Your task to perform on an android device: Turn off the flashlight Image 0: 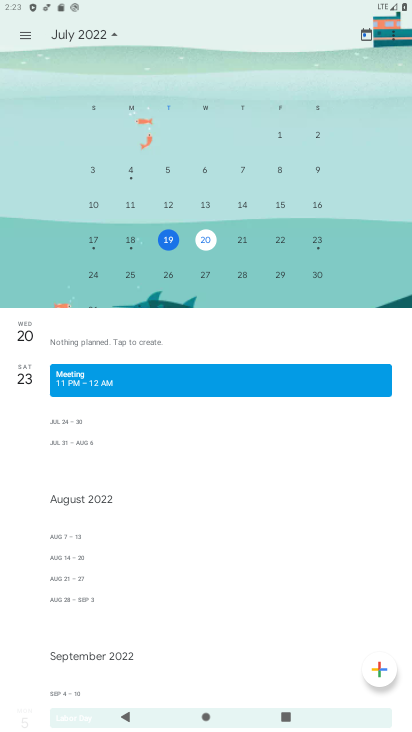
Step 0: press home button
Your task to perform on an android device: Turn off the flashlight Image 1: 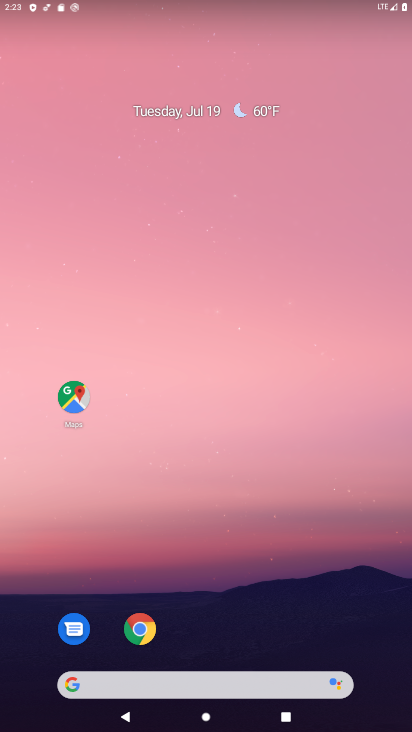
Step 1: drag from (193, 625) to (210, 189)
Your task to perform on an android device: Turn off the flashlight Image 2: 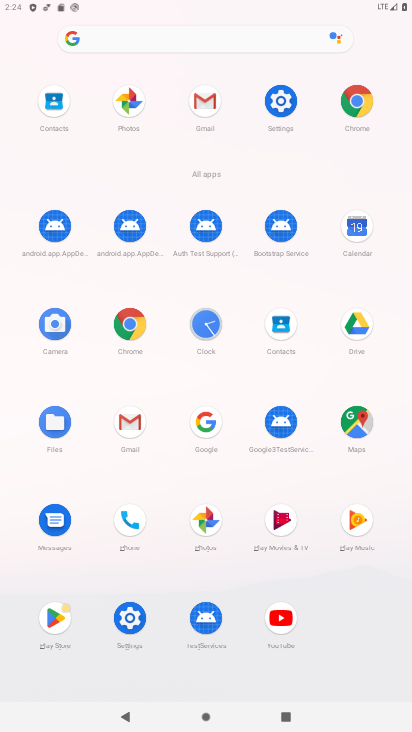
Step 2: click (268, 118)
Your task to perform on an android device: Turn off the flashlight Image 3: 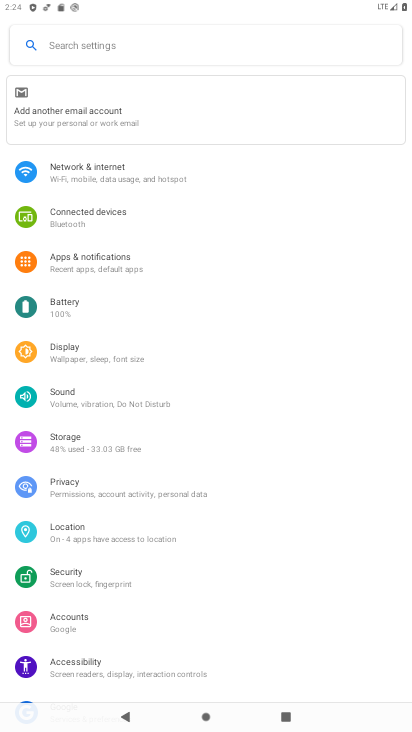
Step 3: task complete